Your task to perform on an android device: open a new tab in the chrome app Image 0: 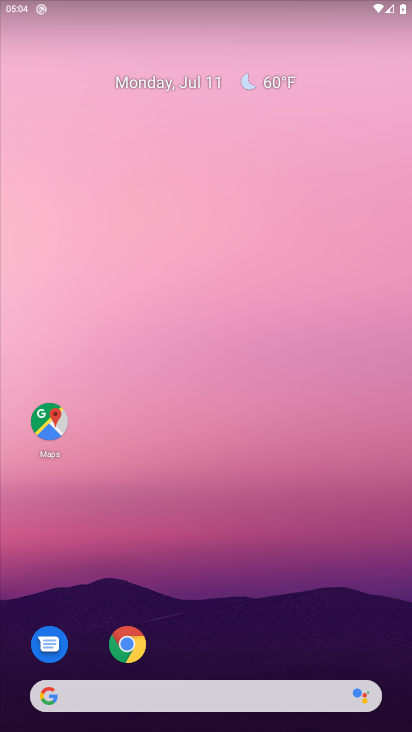
Step 0: click (136, 650)
Your task to perform on an android device: open a new tab in the chrome app Image 1: 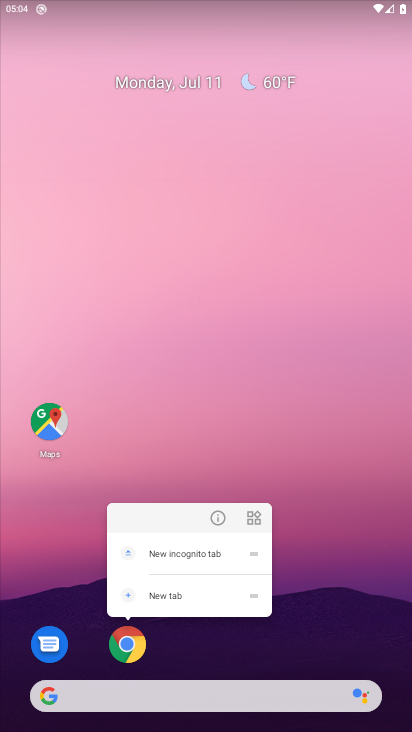
Step 1: click (124, 643)
Your task to perform on an android device: open a new tab in the chrome app Image 2: 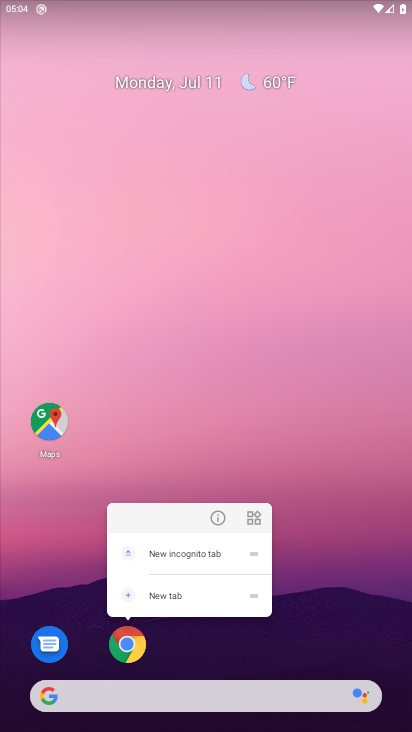
Step 2: click (130, 651)
Your task to perform on an android device: open a new tab in the chrome app Image 3: 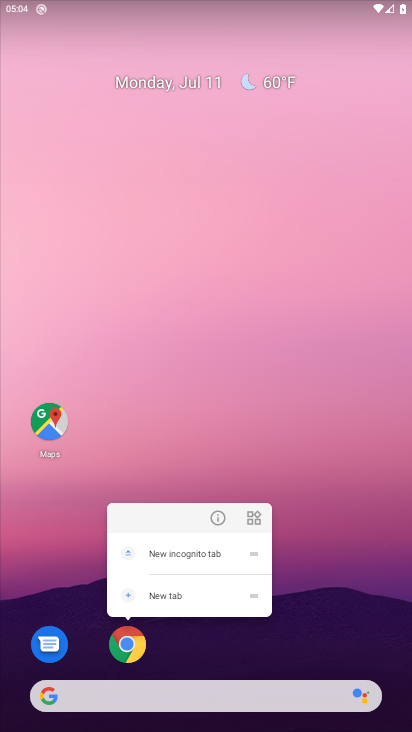
Step 3: click (126, 647)
Your task to perform on an android device: open a new tab in the chrome app Image 4: 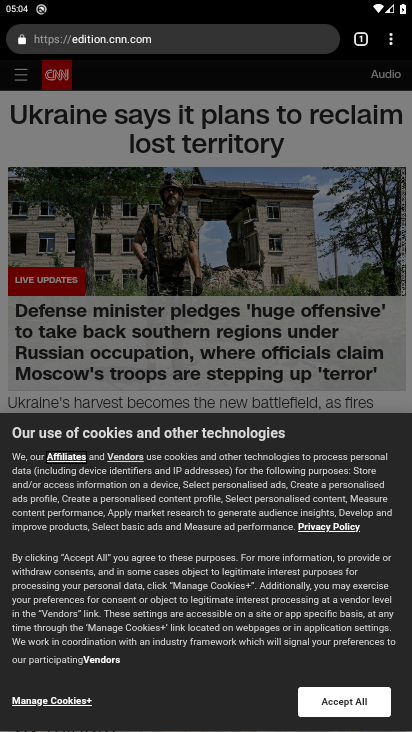
Step 4: click (395, 45)
Your task to perform on an android device: open a new tab in the chrome app Image 5: 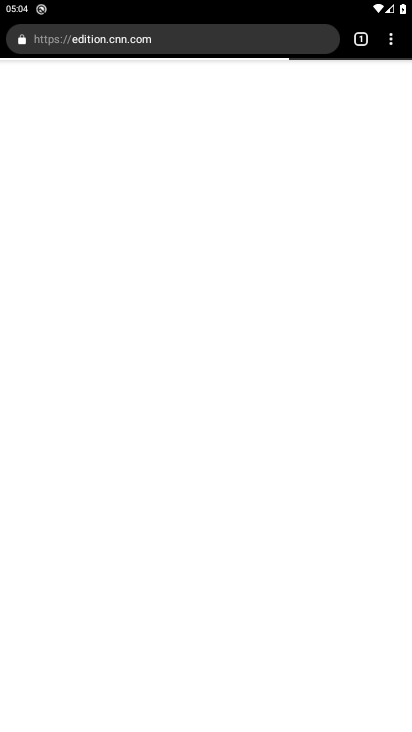
Step 5: click (392, 38)
Your task to perform on an android device: open a new tab in the chrome app Image 6: 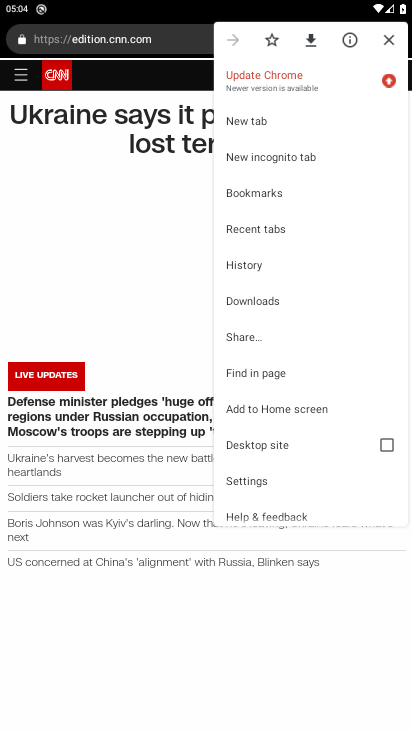
Step 6: click (262, 128)
Your task to perform on an android device: open a new tab in the chrome app Image 7: 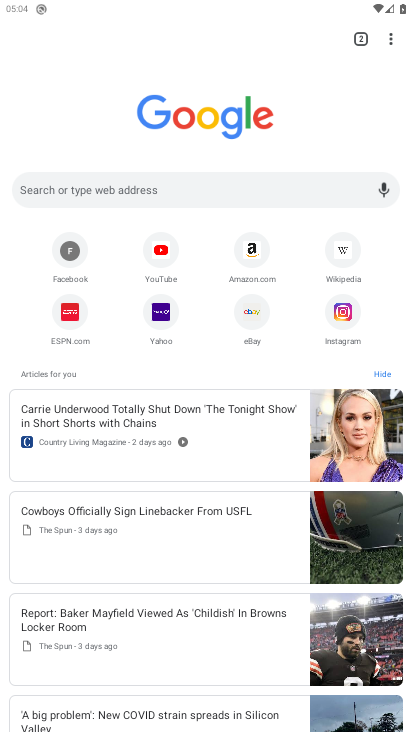
Step 7: task complete